Your task to perform on an android device: What's on my calendar tomorrow? Image 0: 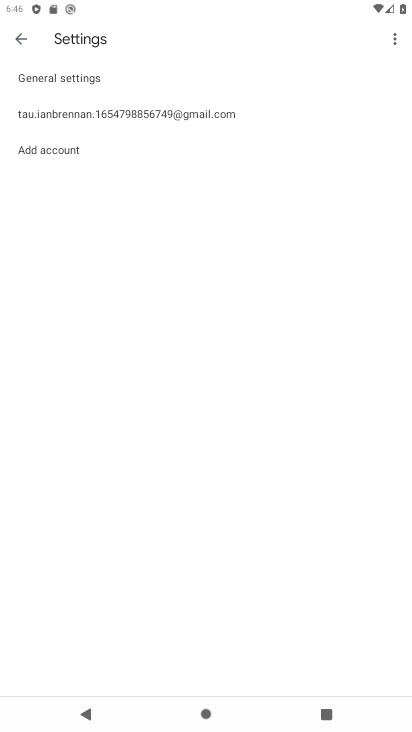
Step 0: press home button
Your task to perform on an android device: What's on my calendar tomorrow? Image 1: 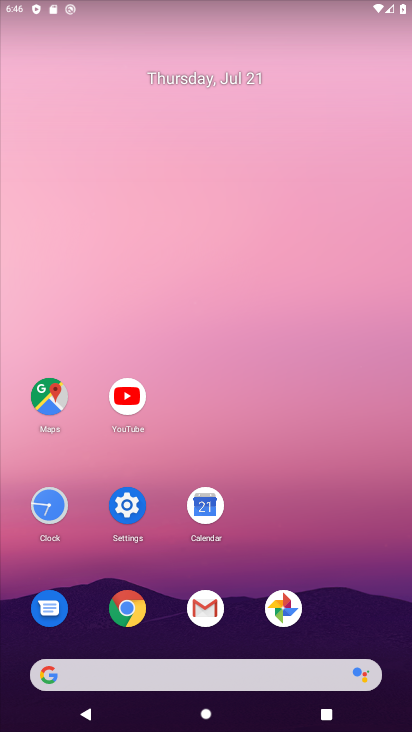
Step 1: click (206, 502)
Your task to perform on an android device: What's on my calendar tomorrow? Image 2: 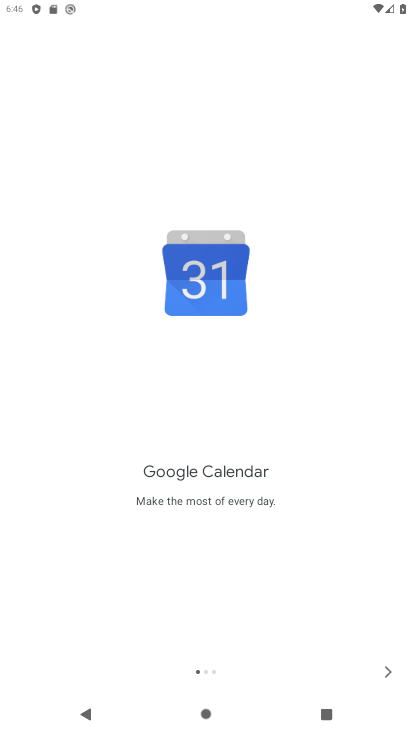
Step 2: click (391, 678)
Your task to perform on an android device: What's on my calendar tomorrow? Image 3: 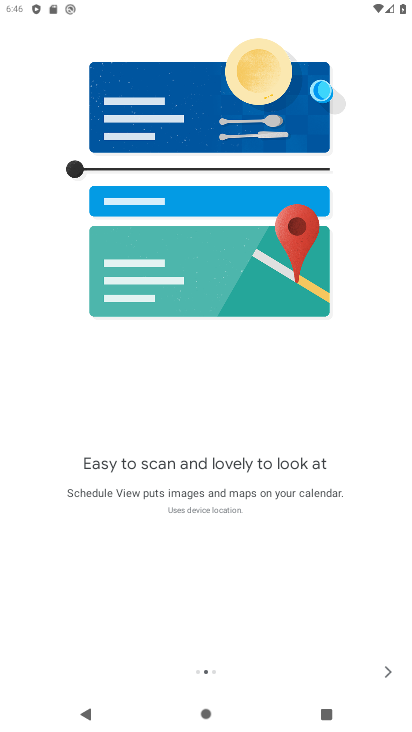
Step 3: click (391, 678)
Your task to perform on an android device: What's on my calendar tomorrow? Image 4: 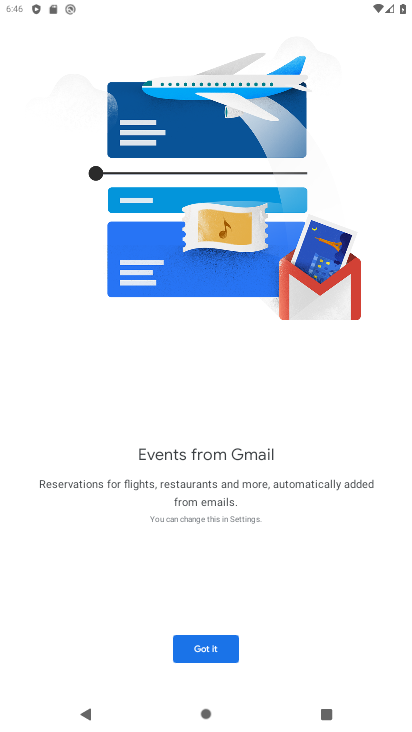
Step 4: click (222, 650)
Your task to perform on an android device: What's on my calendar tomorrow? Image 5: 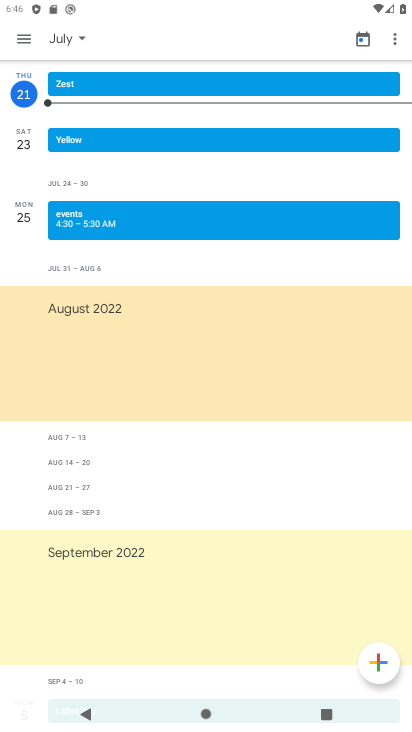
Step 5: click (25, 37)
Your task to perform on an android device: What's on my calendar tomorrow? Image 6: 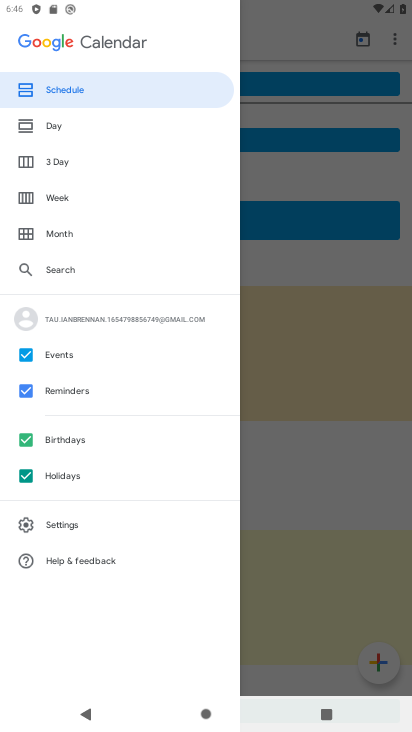
Step 6: click (48, 126)
Your task to perform on an android device: What's on my calendar tomorrow? Image 7: 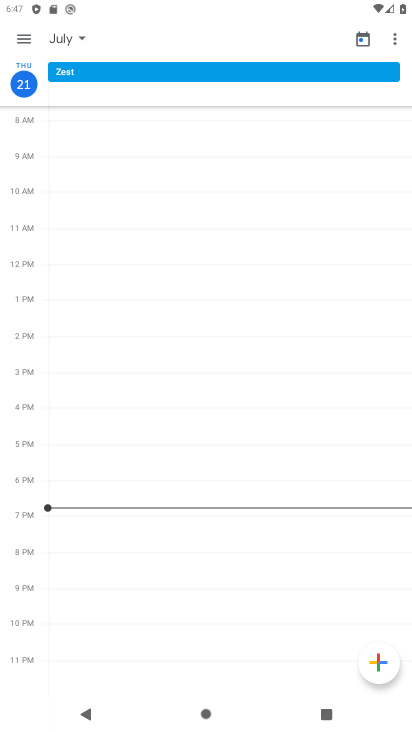
Step 7: click (83, 35)
Your task to perform on an android device: What's on my calendar tomorrow? Image 8: 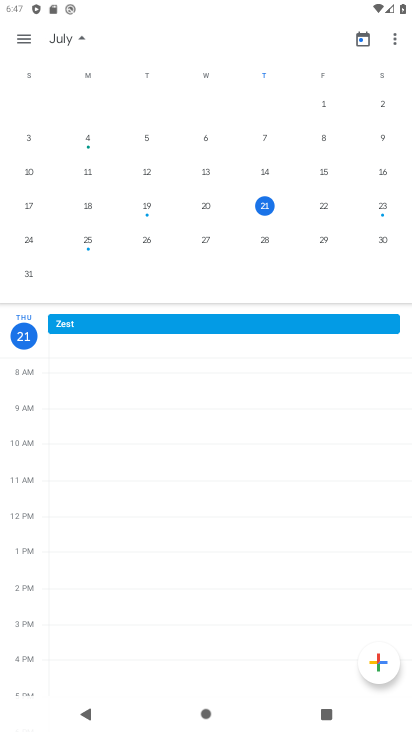
Step 8: click (324, 208)
Your task to perform on an android device: What's on my calendar tomorrow? Image 9: 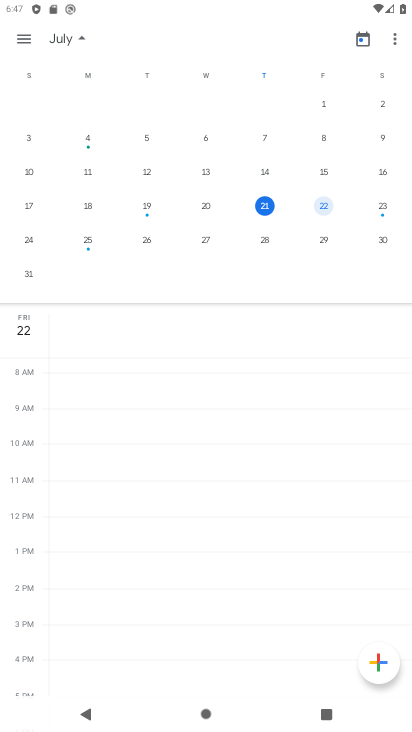
Step 9: task complete